Your task to perform on an android device: turn on the 12-hour format for clock Image 0: 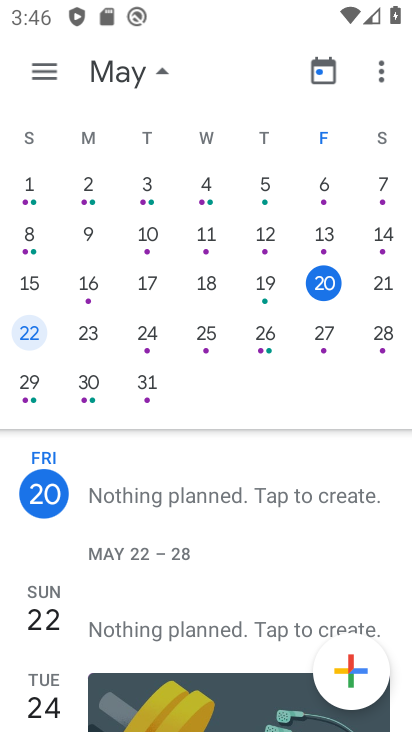
Step 0: press home button
Your task to perform on an android device: turn on the 12-hour format for clock Image 1: 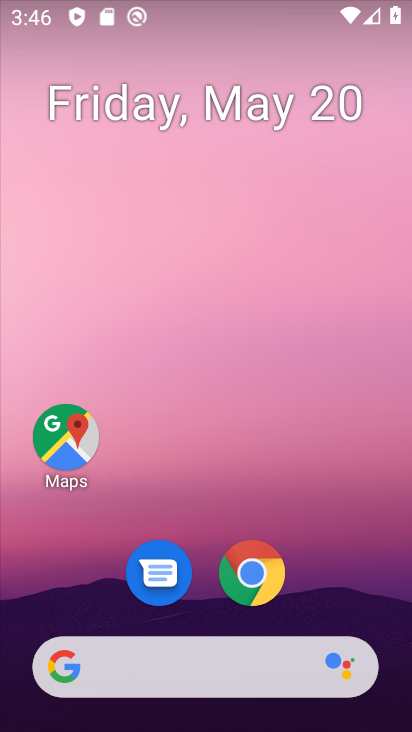
Step 1: drag from (377, 579) to (412, 168)
Your task to perform on an android device: turn on the 12-hour format for clock Image 2: 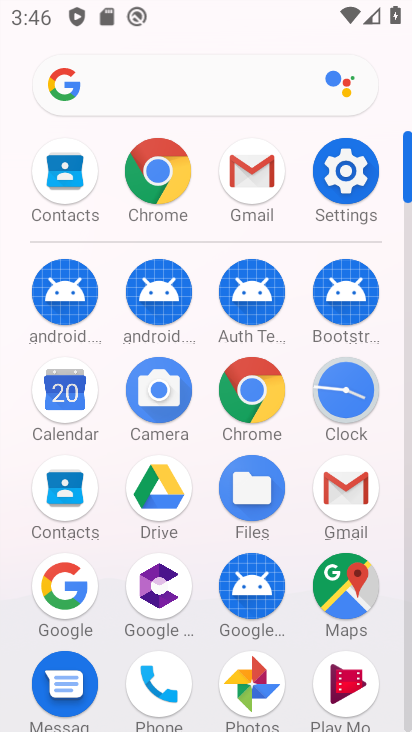
Step 2: click (347, 165)
Your task to perform on an android device: turn on the 12-hour format for clock Image 3: 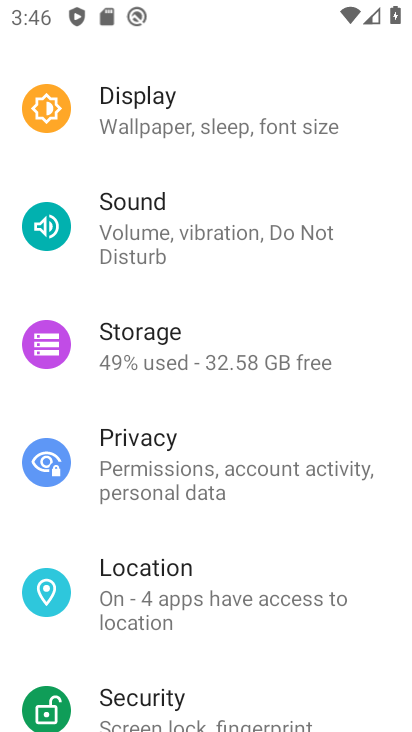
Step 3: press home button
Your task to perform on an android device: turn on the 12-hour format for clock Image 4: 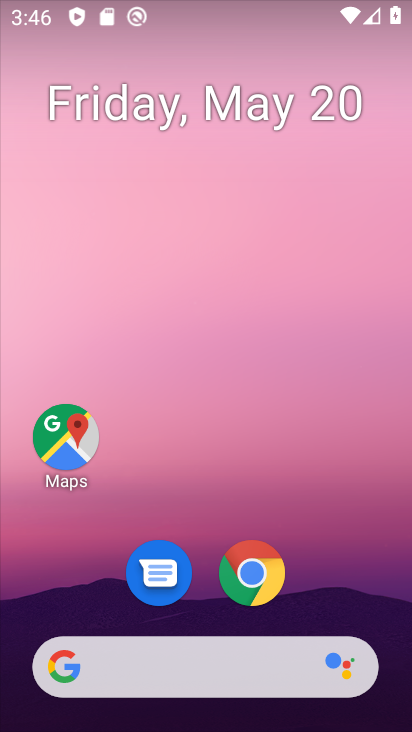
Step 4: drag from (354, 572) to (368, 231)
Your task to perform on an android device: turn on the 12-hour format for clock Image 5: 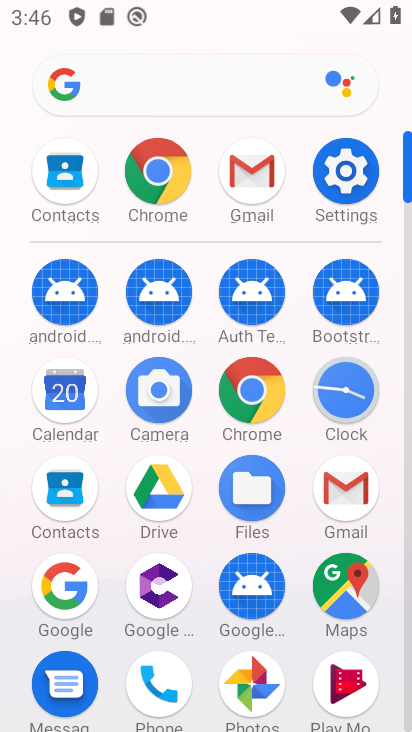
Step 5: click (342, 408)
Your task to perform on an android device: turn on the 12-hour format for clock Image 6: 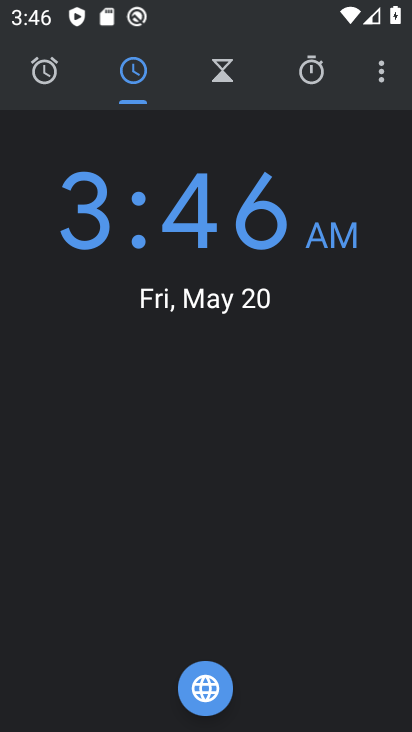
Step 6: click (383, 88)
Your task to perform on an android device: turn on the 12-hour format for clock Image 7: 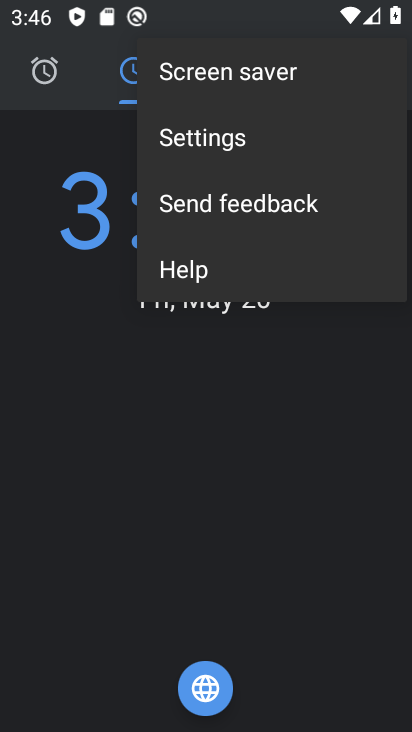
Step 7: click (304, 132)
Your task to perform on an android device: turn on the 12-hour format for clock Image 8: 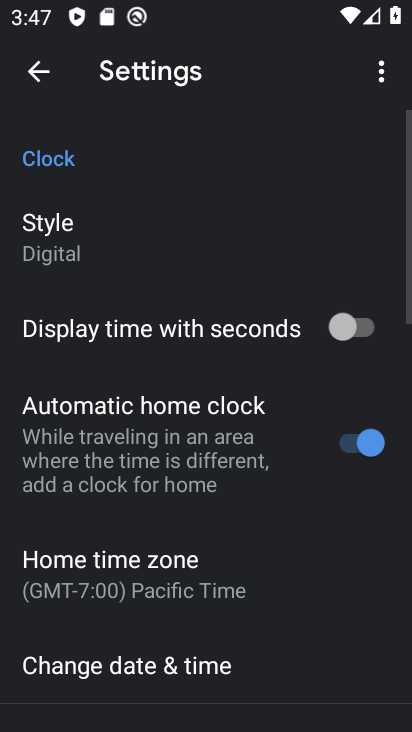
Step 8: click (165, 644)
Your task to perform on an android device: turn on the 12-hour format for clock Image 9: 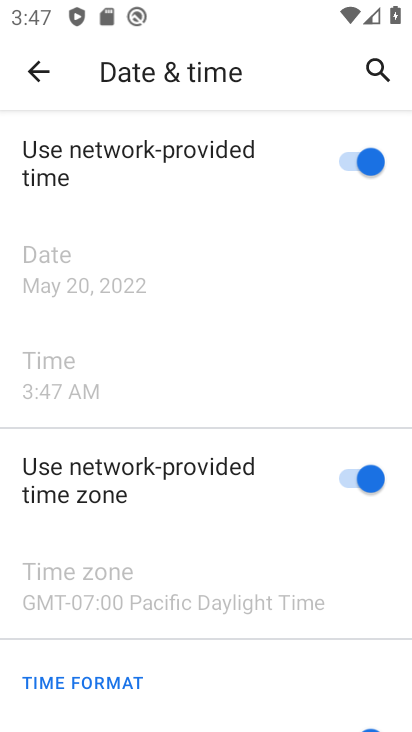
Step 9: task complete